Your task to perform on an android device: turn vacation reply on in the gmail app Image 0: 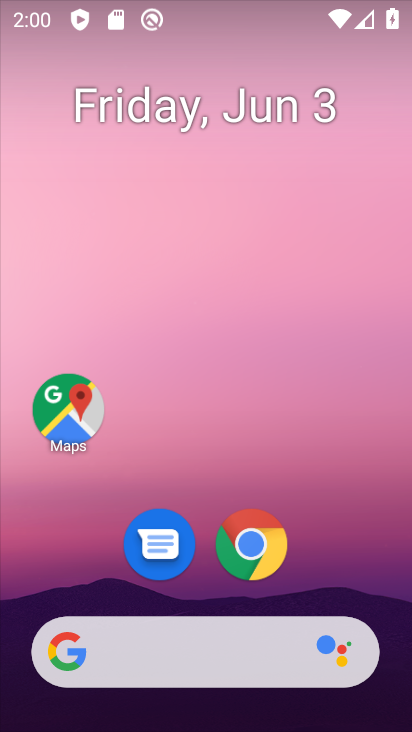
Step 0: drag from (347, 535) to (312, 106)
Your task to perform on an android device: turn vacation reply on in the gmail app Image 1: 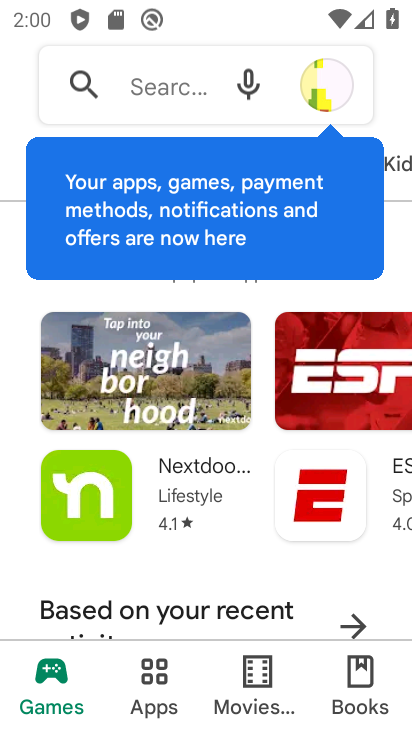
Step 1: press home button
Your task to perform on an android device: turn vacation reply on in the gmail app Image 2: 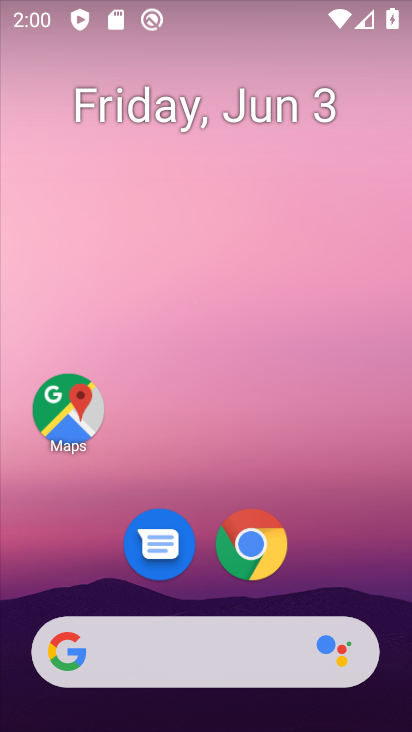
Step 2: drag from (332, 566) to (330, 100)
Your task to perform on an android device: turn vacation reply on in the gmail app Image 3: 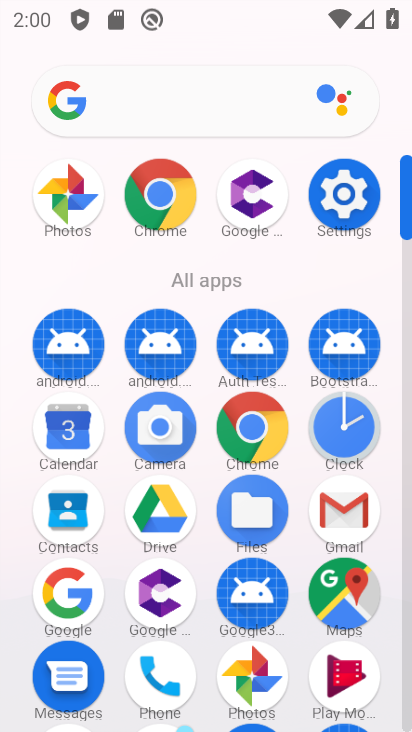
Step 3: click (362, 510)
Your task to perform on an android device: turn vacation reply on in the gmail app Image 4: 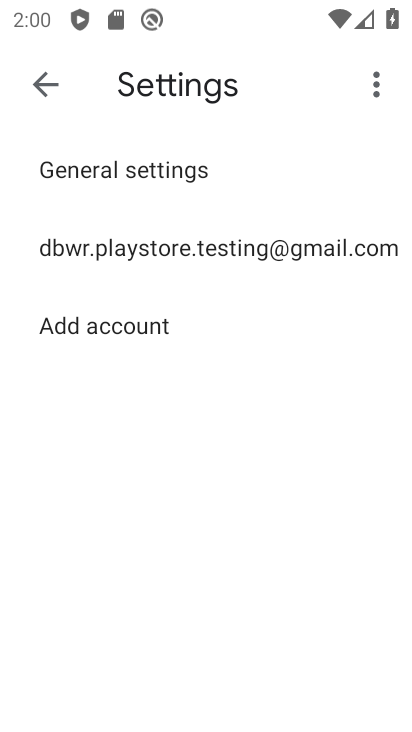
Step 4: click (237, 253)
Your task to perform on an android device: turn vacation reply on in the gmail app Image 5: 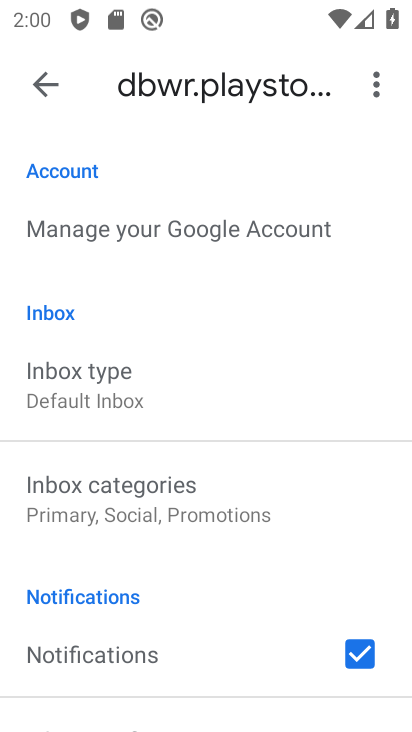
Step 5: task complete